Your task to perform on an android device: Go to Google maps Image 0: 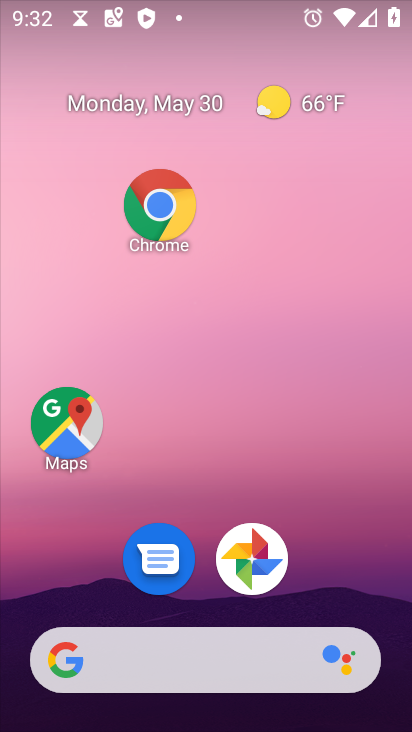
Step 0: drag from (217, 675) to (176, 209)
Your task to perform on an android device: Go to Google maps Image 1: 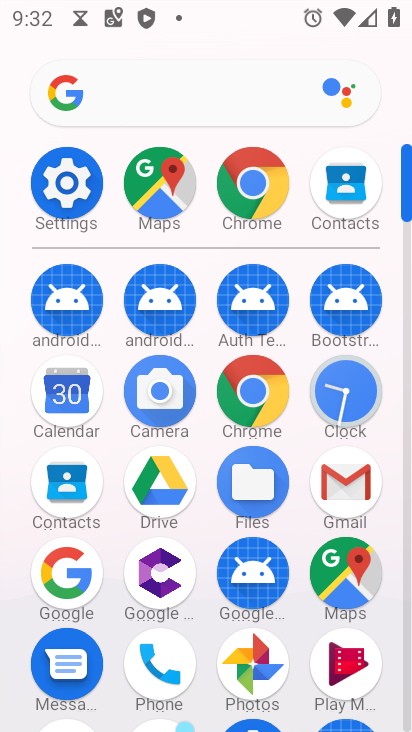
Step 1: click (337, 580)
Your task to perform on an android device: Go to Google maps Image 2: 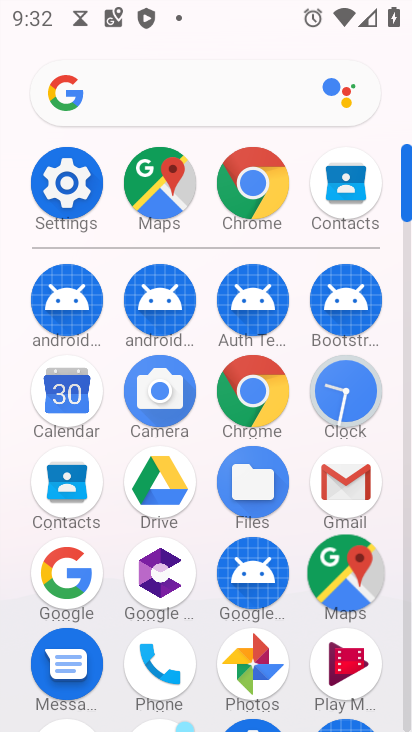
Step 2: click (337, 580)
Your task to perform on an android device: Go to Google maps Image 3: 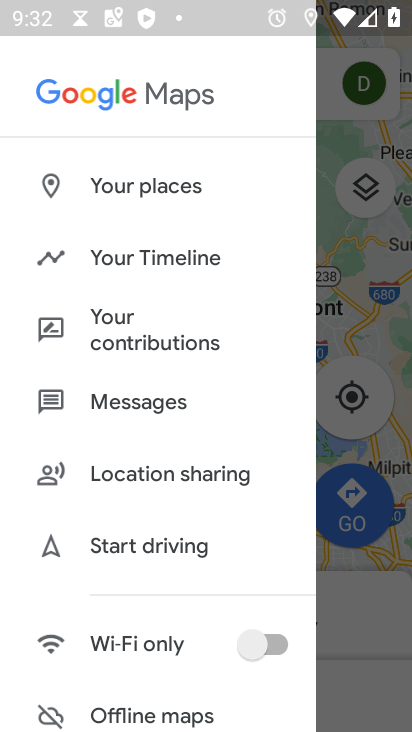
Step 3: press back button
Your task to perform on an android device: Go to Google maps Image 4: 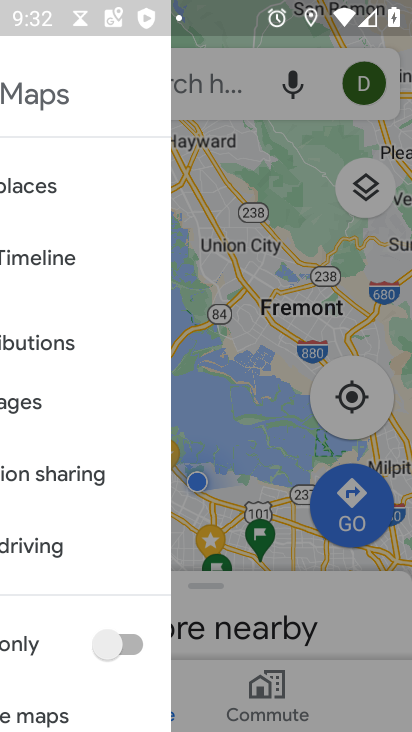
Step 4: press back button
Your task to perform on an android device: Go to Google maps Image 5: 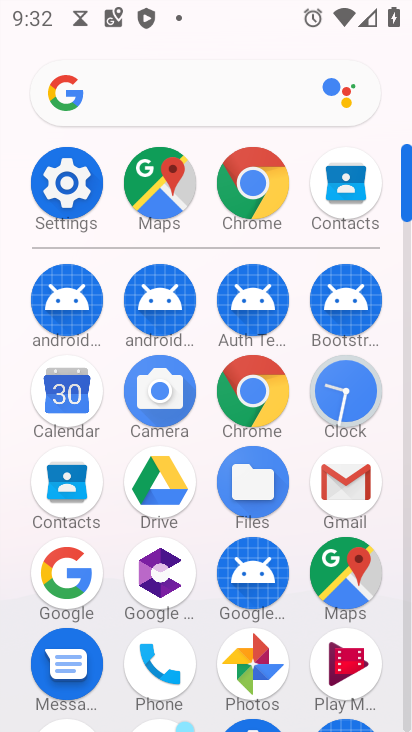
Step 5: click (344, 575)
Your task to perform on an android device: Go to Google maps Image 6: 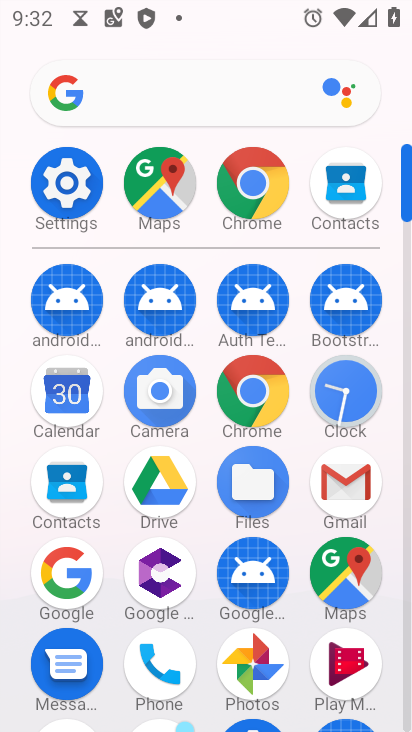
Step 6: click (346, 577)
Your task to perform on an android device: Go to Google maps Image 7: 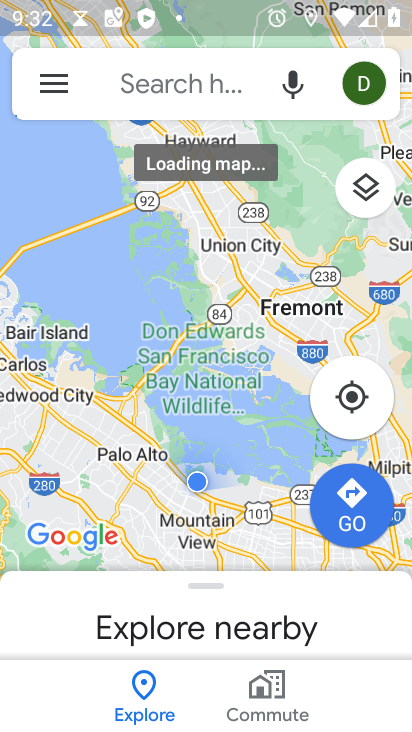
Step 7: task complete